Your task to perform on an android device: open app "Booking.com: Hotels and more" Image 0: 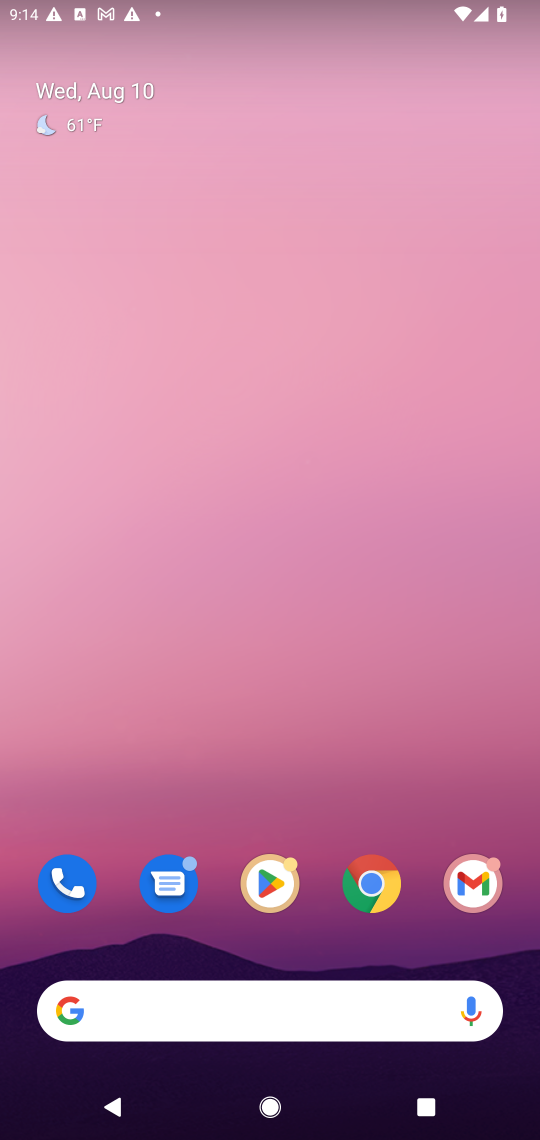
Step 0: click (283, 897)
Your task to perform on an android device: open app "Booking.com: Hotels and more" Image 1: 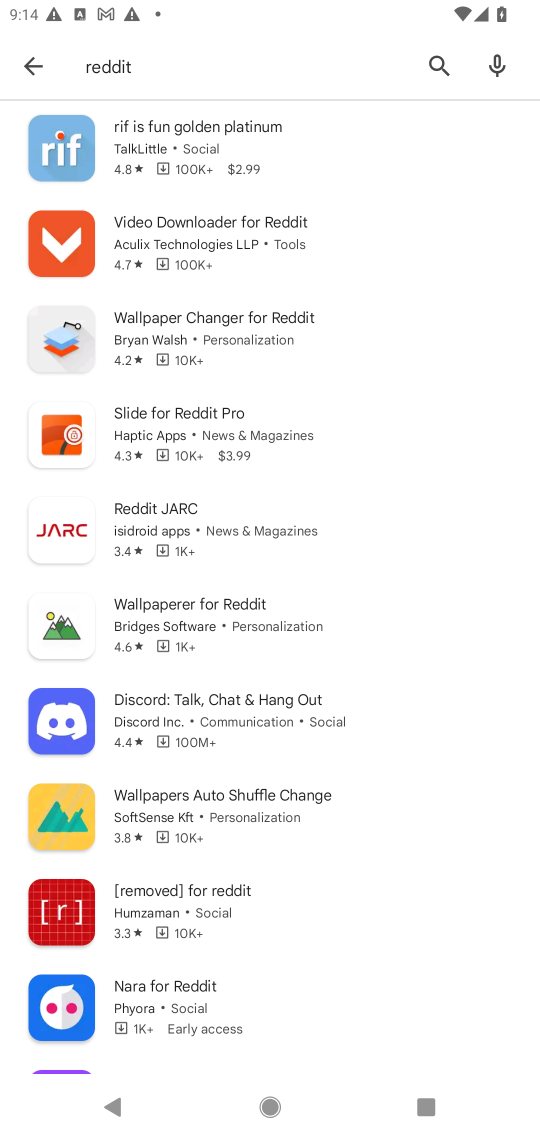
Step 1: click (437, 72)
Your task to perform on an android device: open app "Booking.com: Hotels and more" Image 2: 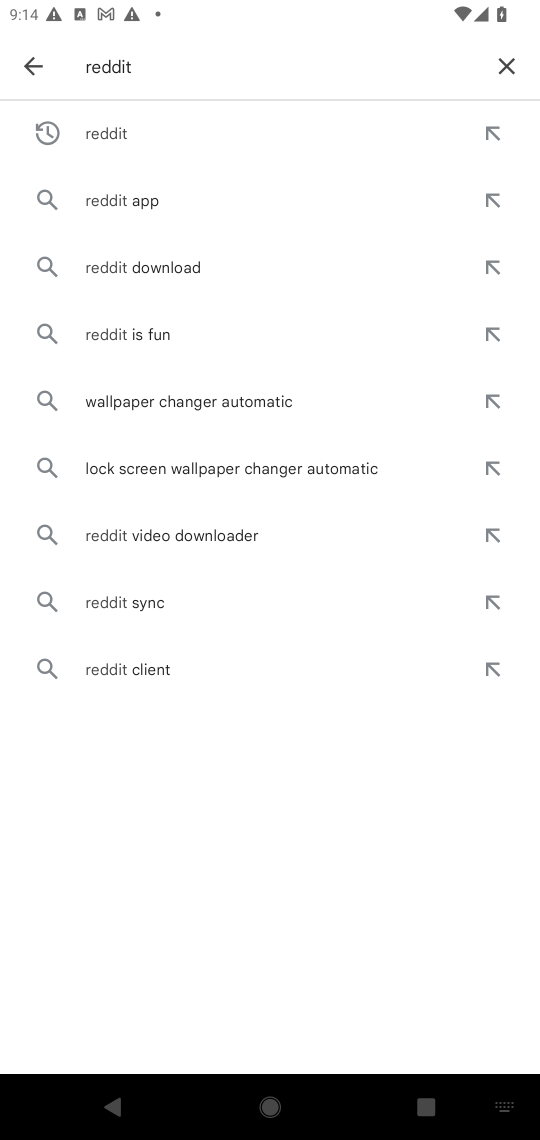
Step 2: click (504, 57)
Your task to perform on an android device: open app "Booking.com: Hotels and more" Image 3: 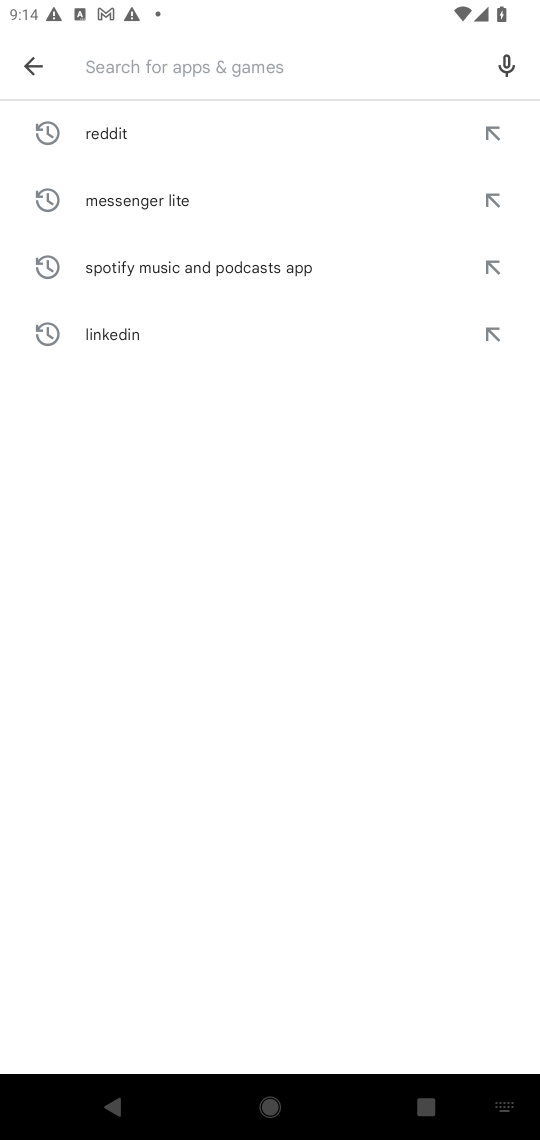
Step 3: type "Booking.com: Hotels and more"
Your task to perform on an android device: open app "Booking.com: Hotels and more" Image 4: 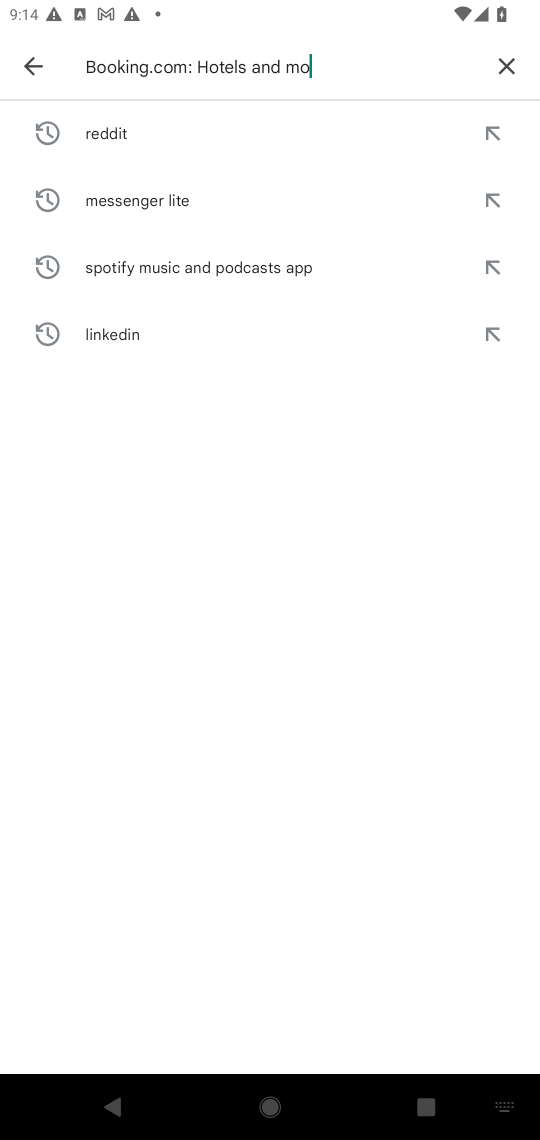
Step 4: type ""
Your task to perform on an android device: open app "Booking.com: Hotels and more" Image 5: 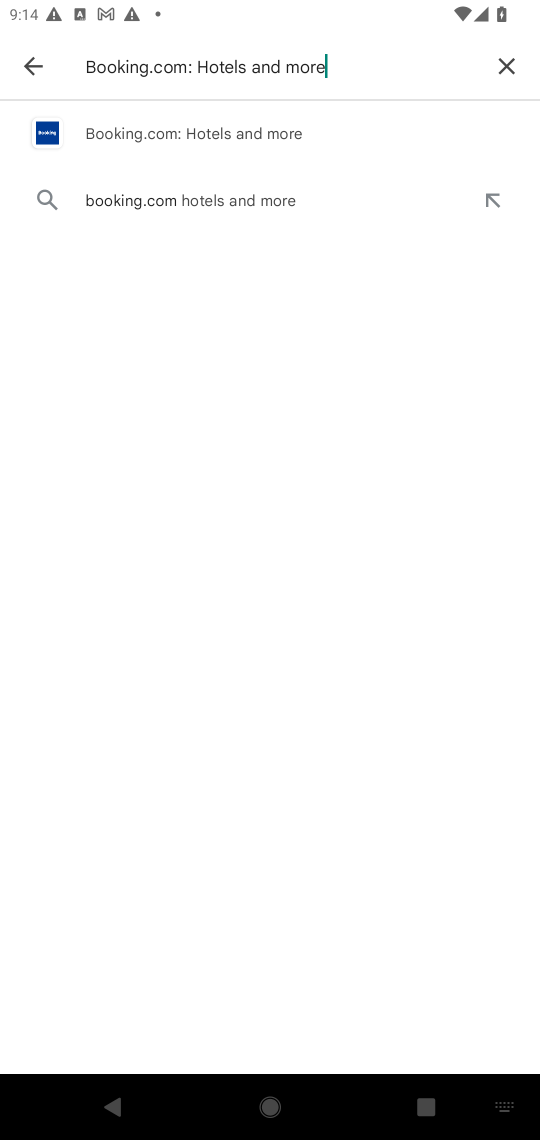
Step 5: click (204, 138)
Your task to perform on an android device: open app "Booking.com: Hotels and more" Image 6: 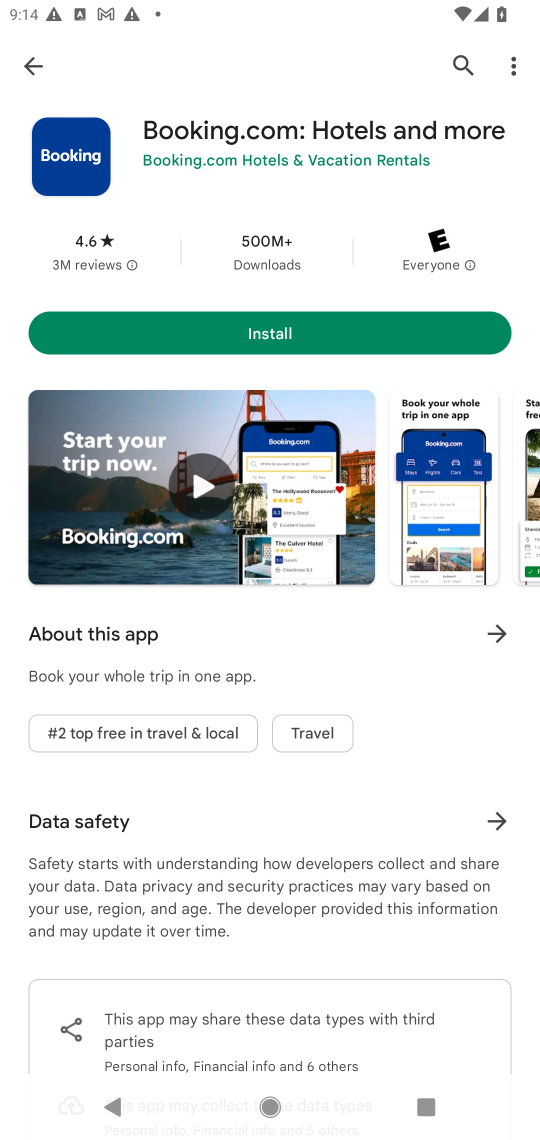
Step 6: task complete